Your task to perform on an android device: all mails in gmail Image 0: 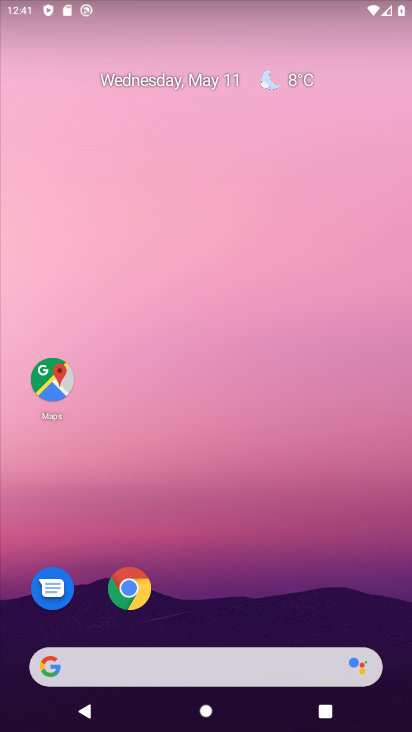
Step 0: drag from (246, 618) to (157, 34)
Your task to perform on an android device: all mails in gmail Image 1: 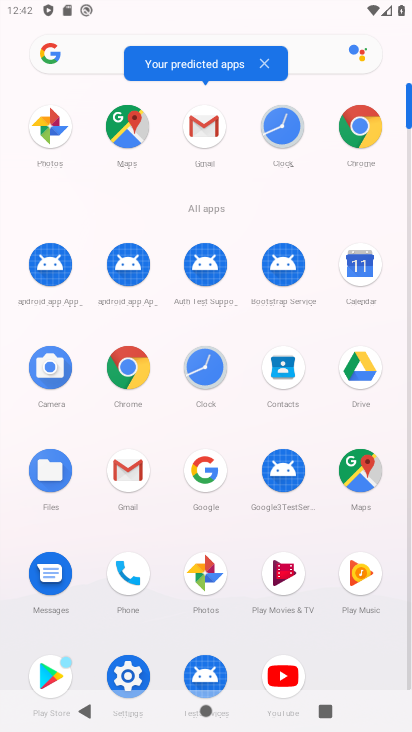
Step 1: click (131, 474)
Your task to perform on an android device: all mails in gmail Image 2: 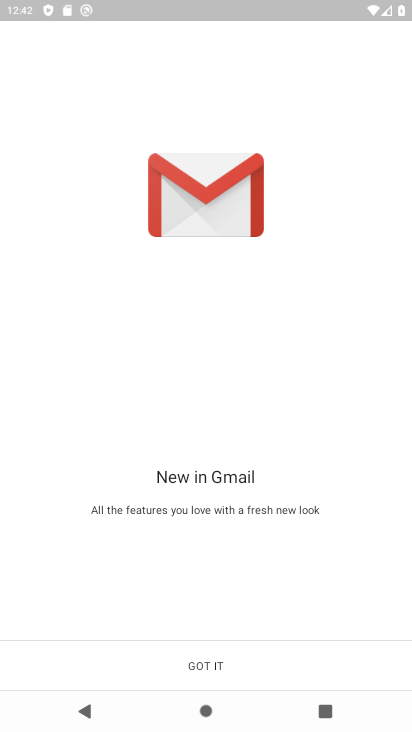
Step 2: click (271, 679)
Your task to perform on an android device: all mails in gmail Image 3: 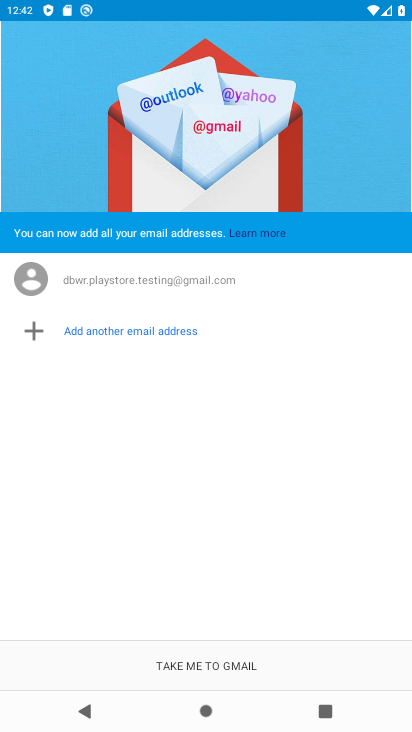
Step 3: click (271, 679)
Your task to perform on an android device: all mails in gmail Image 4: 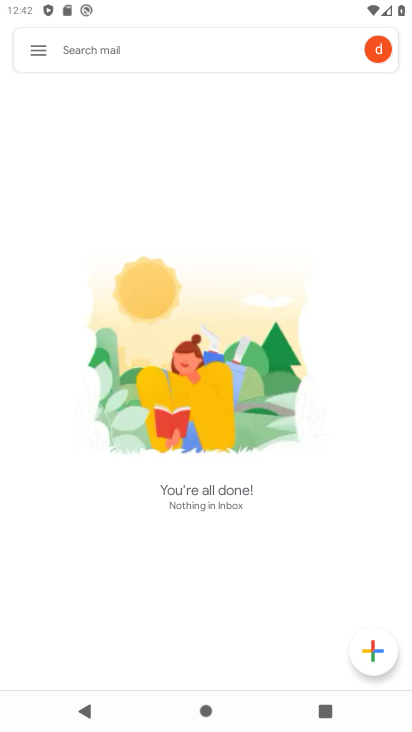
Step 4: click (32, 59)
Your task to perform on an android device: all mails in gmail Image 5: 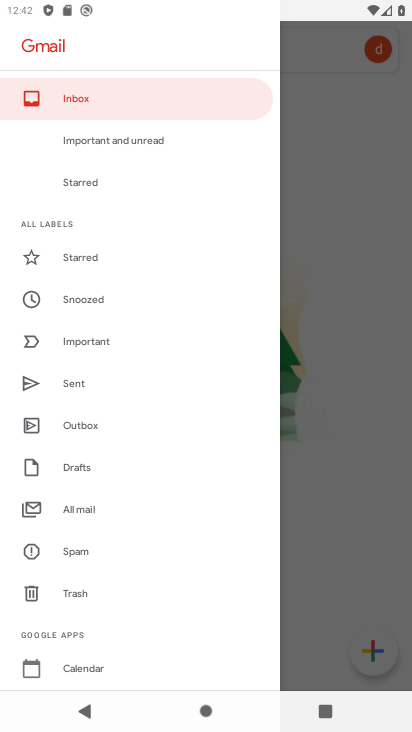
Step 5: click (82, 515)
Your task to perform on an android device: all mails in gmail Image 6: 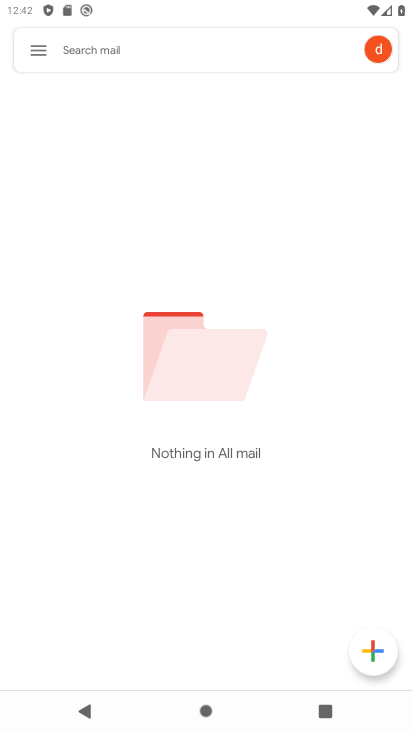
Step 6: task complete